Your task to perform on an android device: Open the stopwatch Image 0: 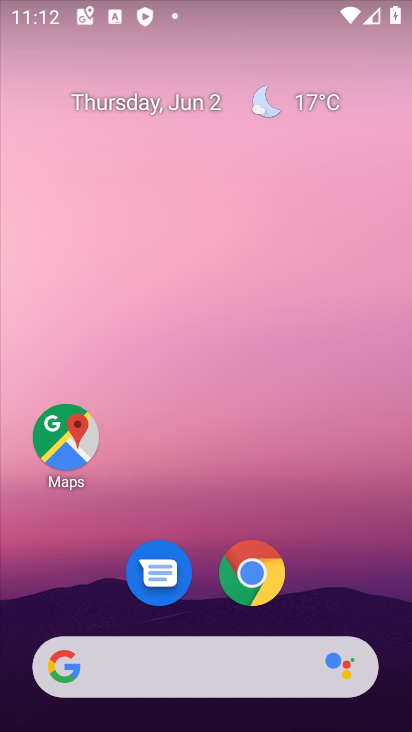
Step 0: drag from (310, 522) to (308, 114)
Your task to perform on an android device: Open the stopwatch Image 1: 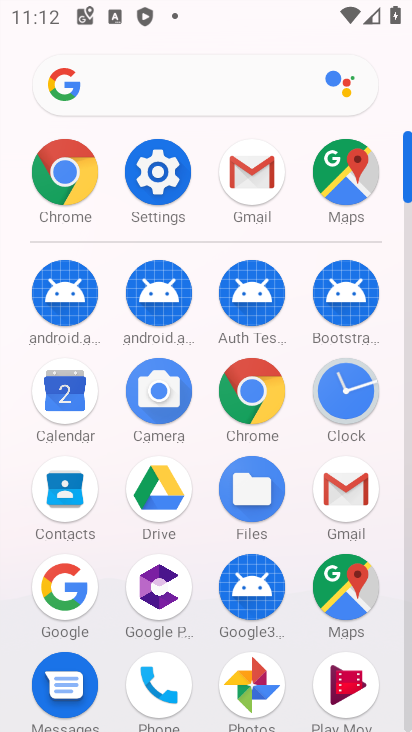
Step 1: click (338, 368)
Your task to perform on an android device: Open the stopwatch Image 2: 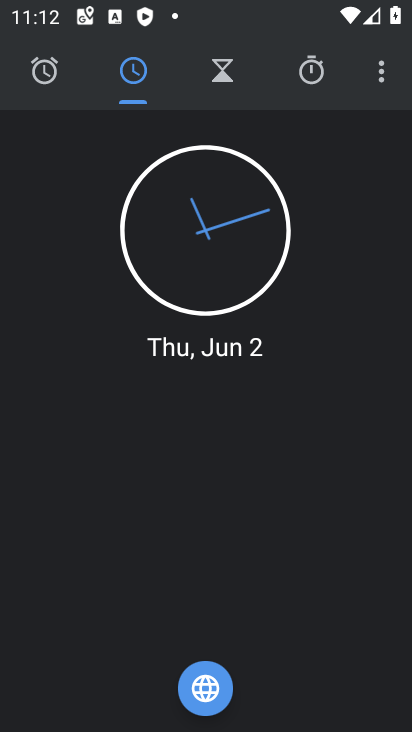
Step 2: click (297, 90)
Your task to perform on an android device: Open the stopwatch Image 3: 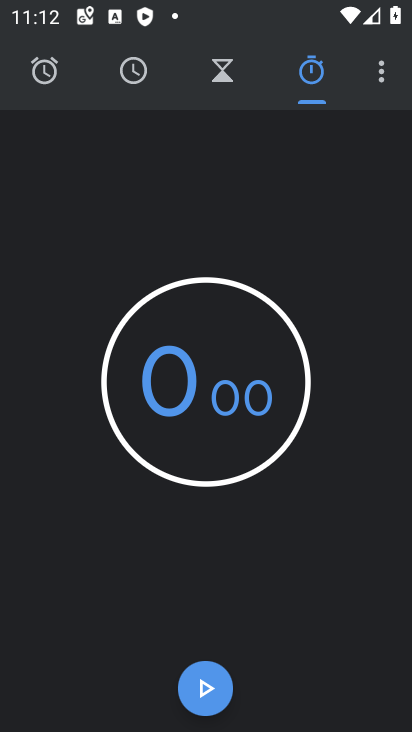
Step 3: task complete